Your task to perform on an android device: turn on the 24-hour format for clock Image 0: 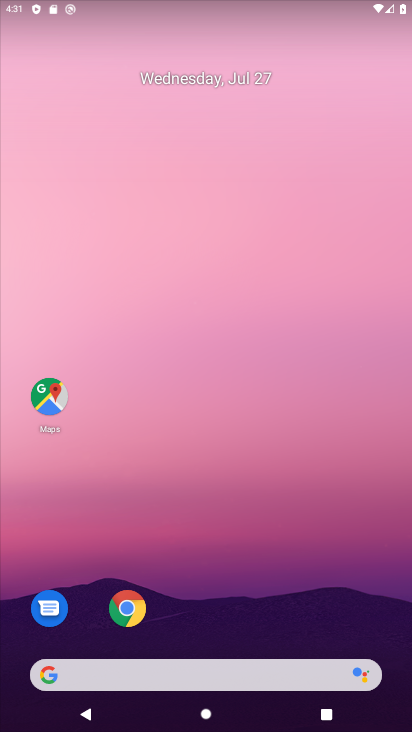
Step 0: press home button
Your task to perform on an android device: turn on the 24-hour format for clock Image 1: 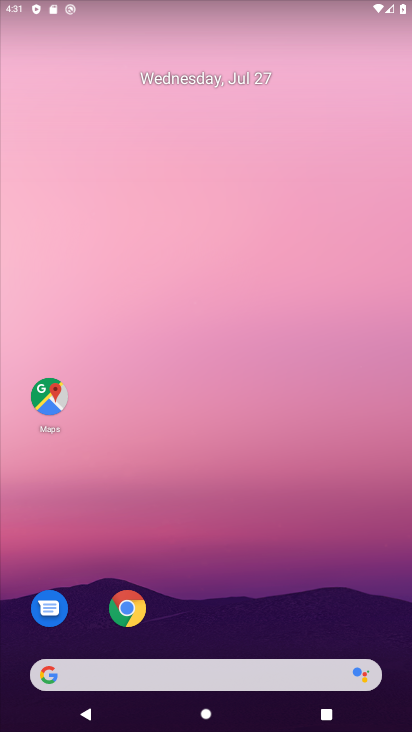
Step 1: drag from (270, 634) to (302, 396)
Your task to perform on an android device: turn on the 24-hour format for clock Image 2: 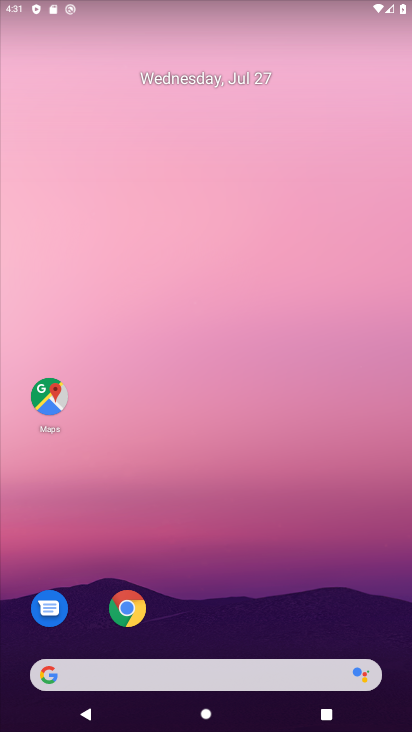
Step 2: click (255, 625)
Your task to perform on an android device: turn on the 24-hour format for clock Image 3: 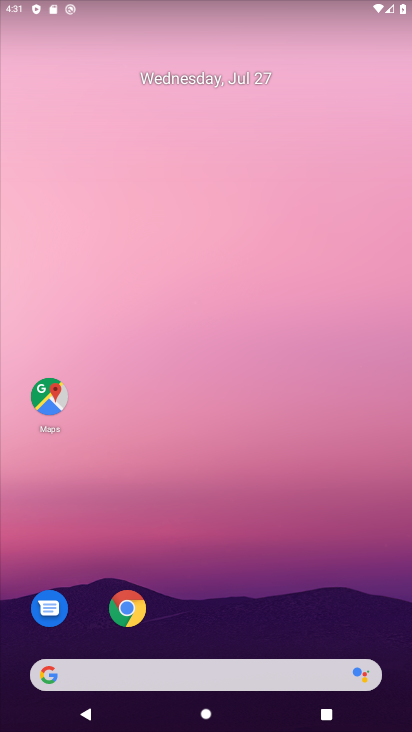
Step 3: drag from (255, 625) to (281, 155)
Your task to perform on an android device: turn on the 24-hour format for clock Image 4: 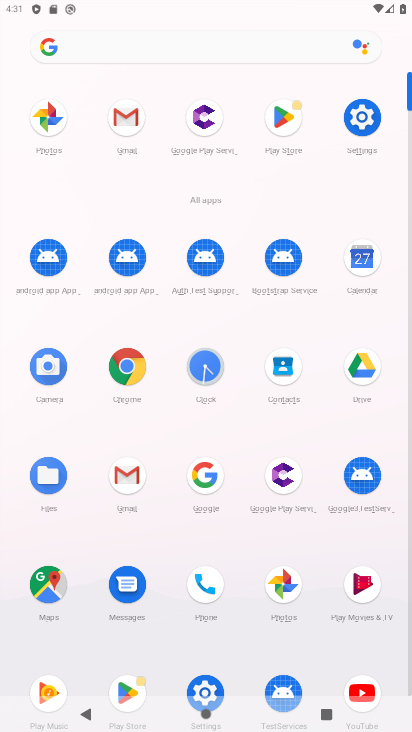
Step 4: click (380, 95)
Your task to perform on an android device: turn on the 24-hour format for clock Image 5: 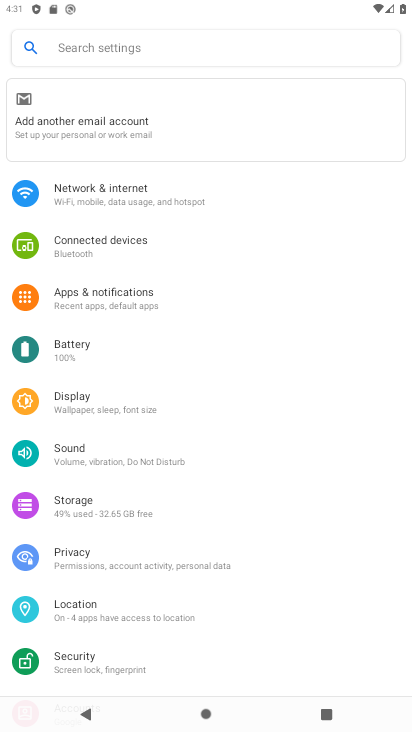
Step 5: drag from (278, 643) to (224, 30)
Your task to perform on an android device: turn on the 24-hour format for clock Image 6: 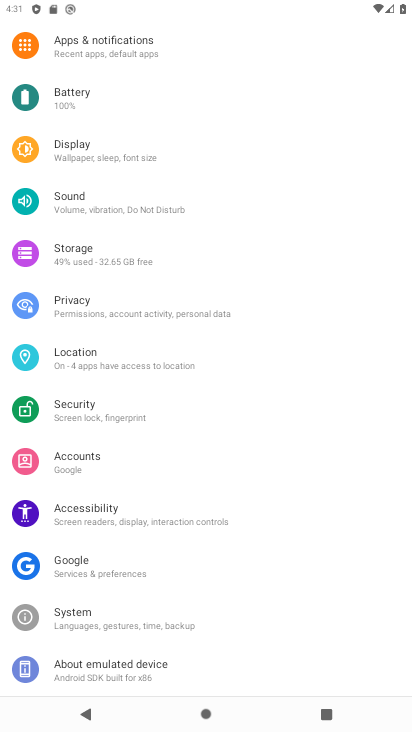
Step 6: click (96, 629)
Your task to perform on an android device: turn on the 24-hour format for clock Image 7: 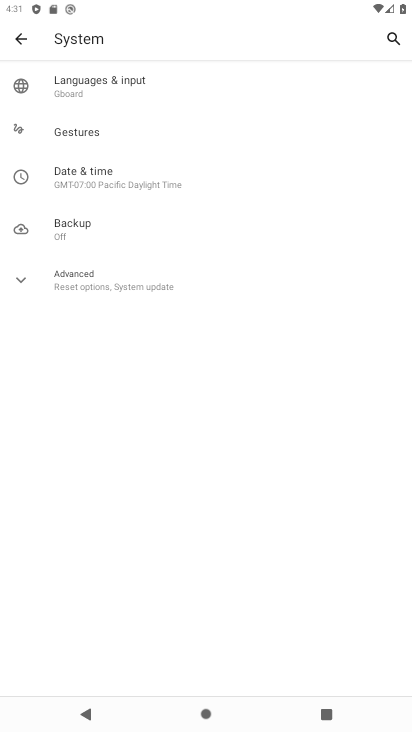
Step 7: click (114, 177)
Your task to perform on an android device: turn on the 24-hour format for clock Image 8: 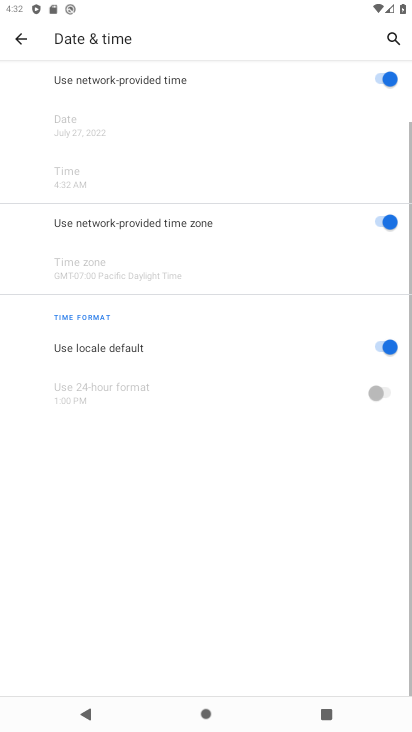
Step 8: click (389, 349)
Your task to perform on an android device: turn on the 24-hour format for clock Image 9: 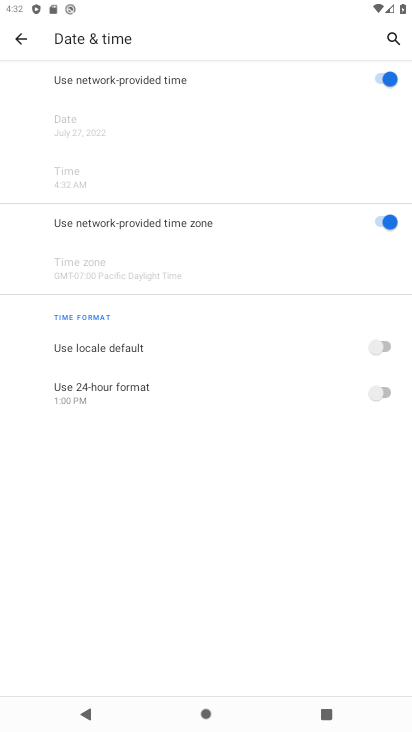
Step 9: click (376, 388)
Your task to perform on an android device: turn on the 24-hour format for clock Image 10: 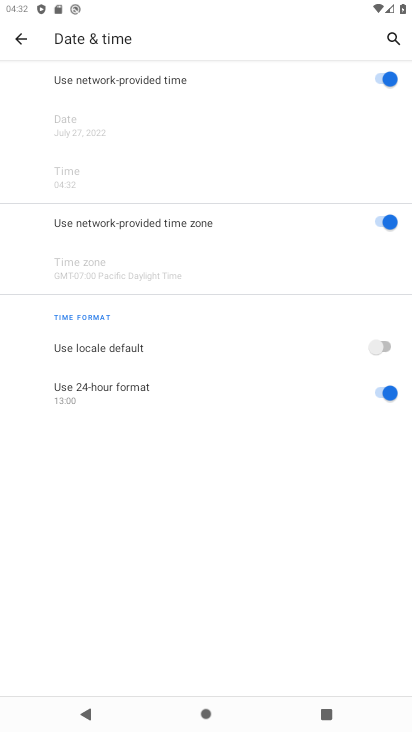
Step 10: task complete